Your task to perform on an android device: Open Google Chrome and click the shortcut for Amazon.com Image 0: 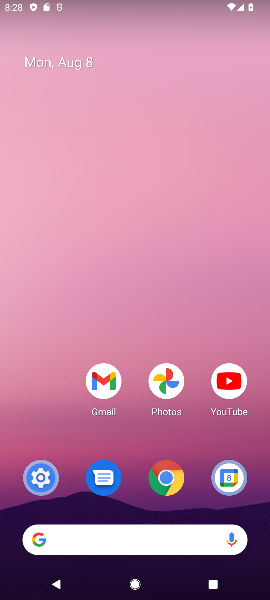
Step 0: press home button
Your task to perform on an android device: Open Google Chrome and click the shortcut for Amazon.com Image 1: 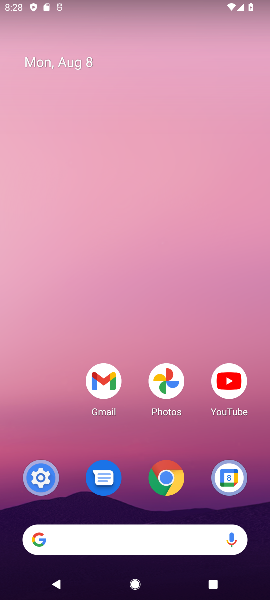
Step 1: click (164, 478)
Your task to perform on an android device: Open Google Chrome and click the shortcut for Amazon.com Image 2: 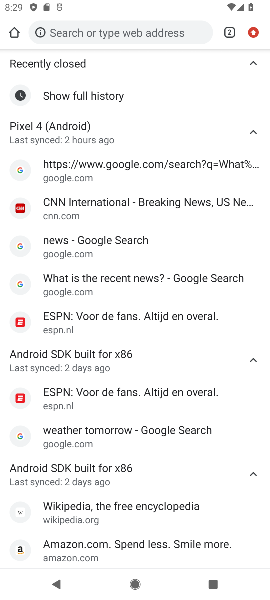
Step 2: drag from (251, 36) to (196, 102)
Your task to perform on an android device: Open Google Chrome and click the shortcut for Amazon.com Image 3: 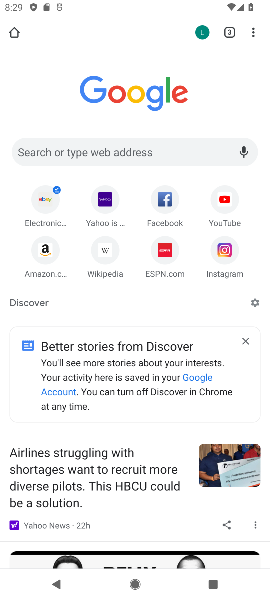
Step 3: click (47, 250)
Your task to perform on an android device: Open Google Chrome and click the shortcut for Amazon.com Image 4: 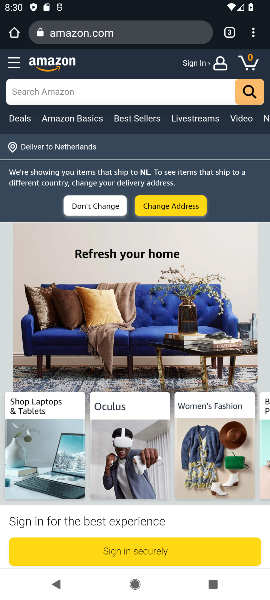
Step 4: task complete